Your task to perform on an android device: Open eBay Image 0: 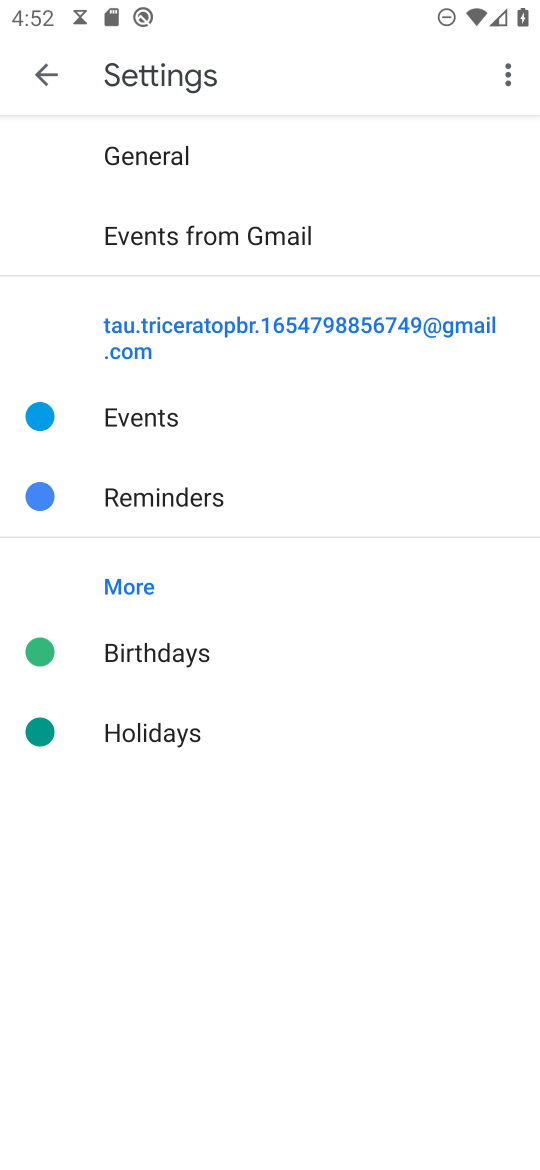
Step 0: press home button
Your task to perform on an android device: Open eBay Image 1: 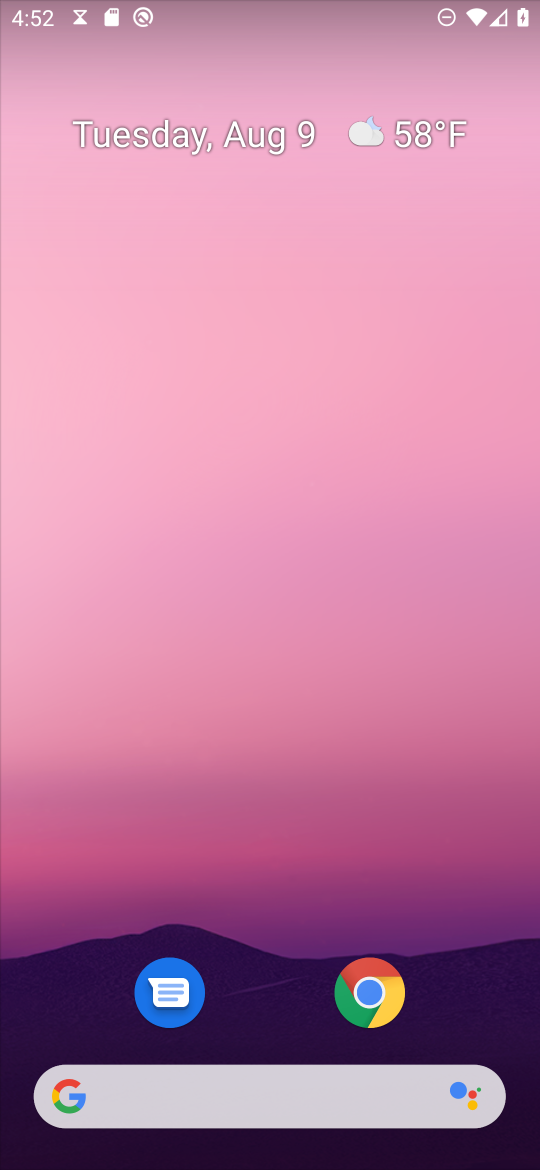
Step 1: drag from (338, 1063) to (133, 38)
Your task to perform on an android device: Open eBay Image 2: 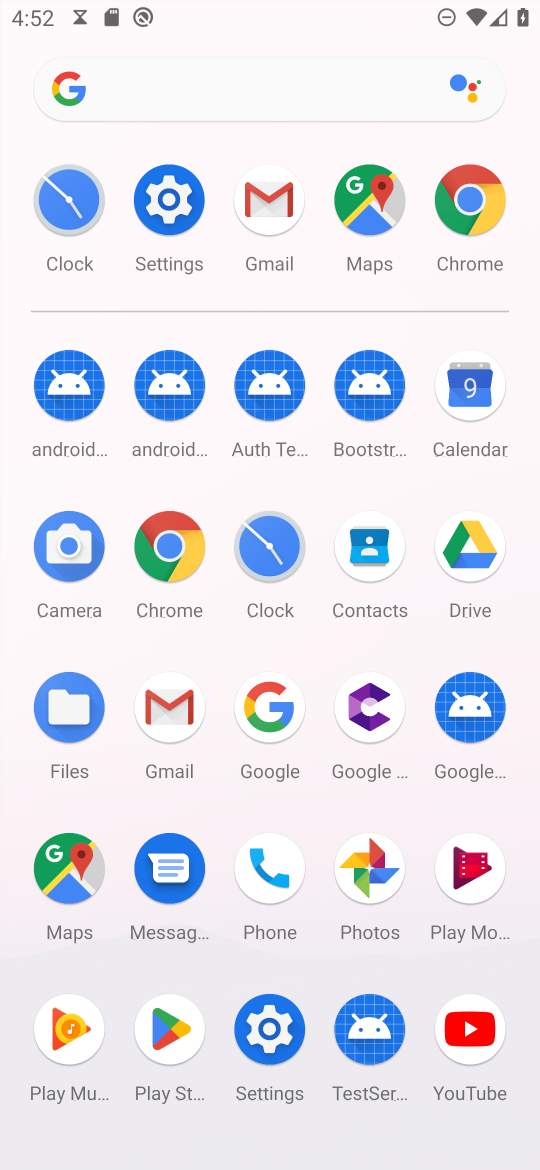
Step 2: click (149, 627)
Your task to perform on an android device: Open eBay Image 3: 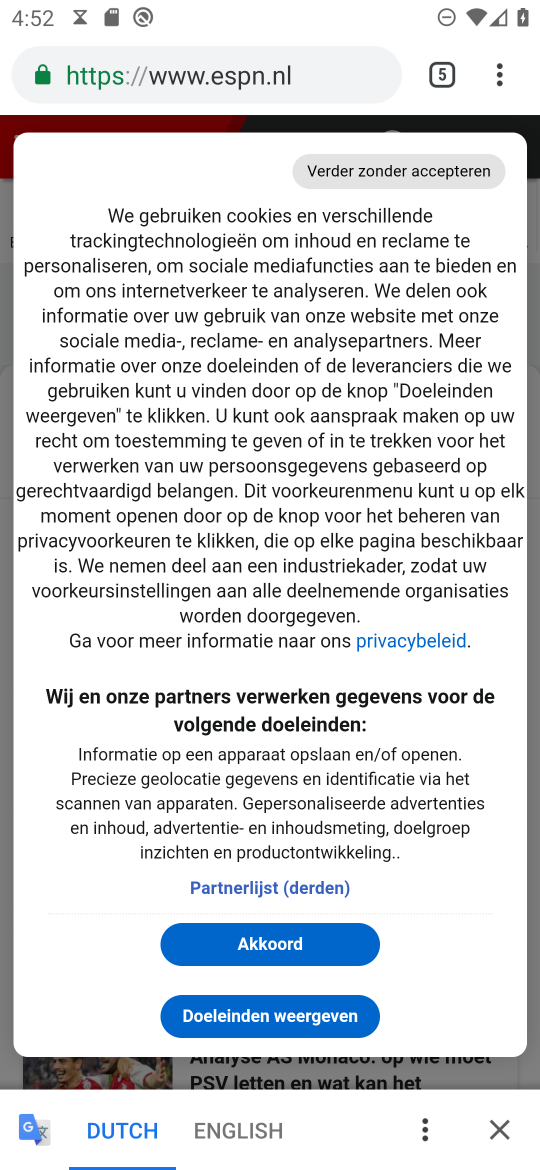
Step 3: click (306, 69)
Your task to perform on an android device: Open eBay Image 4: 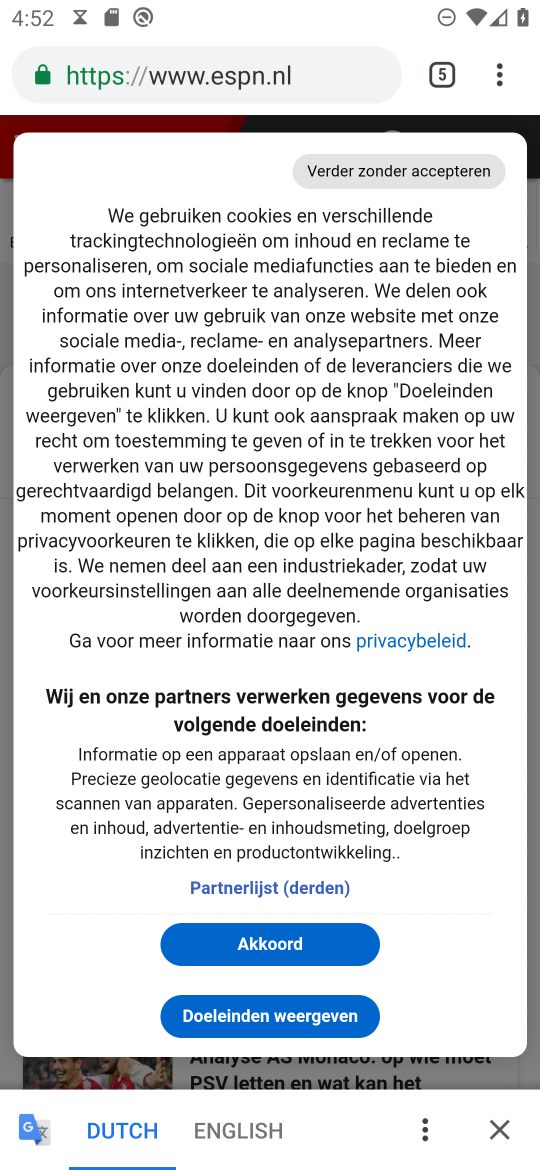
Step 4: click (306, 69)
Your task to perform on an android device: Open eBay Image 5: 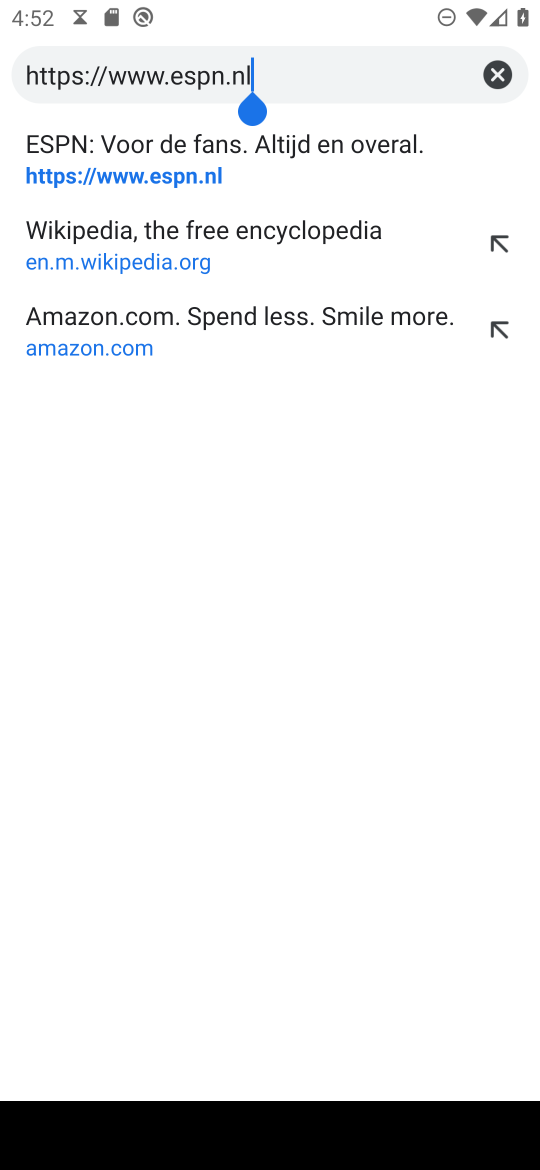
Step 5: click (497, 69)
Your task to perform on an android device: Open eBay Image 6: 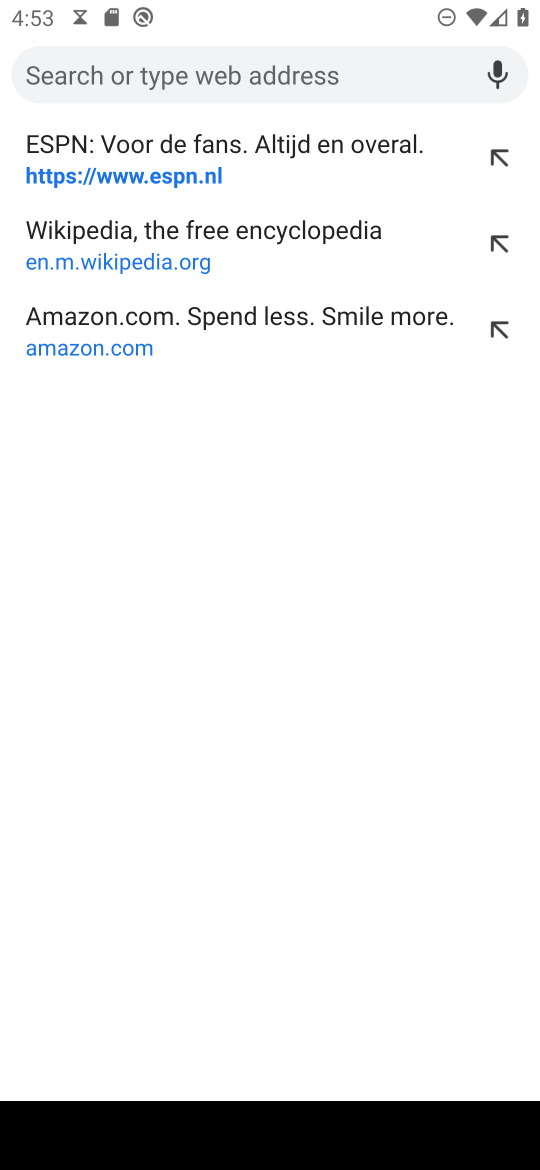
Step 6: type "ebay"
Your task to perform on an android device: Open eBay Image 7: 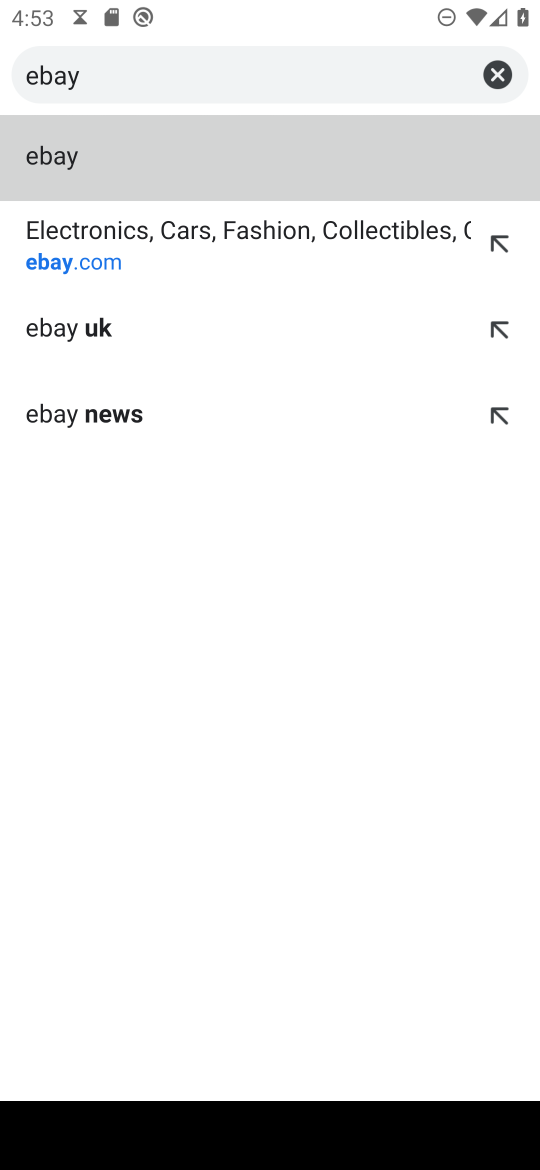
Step 7: click (287, 236)
Your task to perform on an android device: Open eBay Image 8: 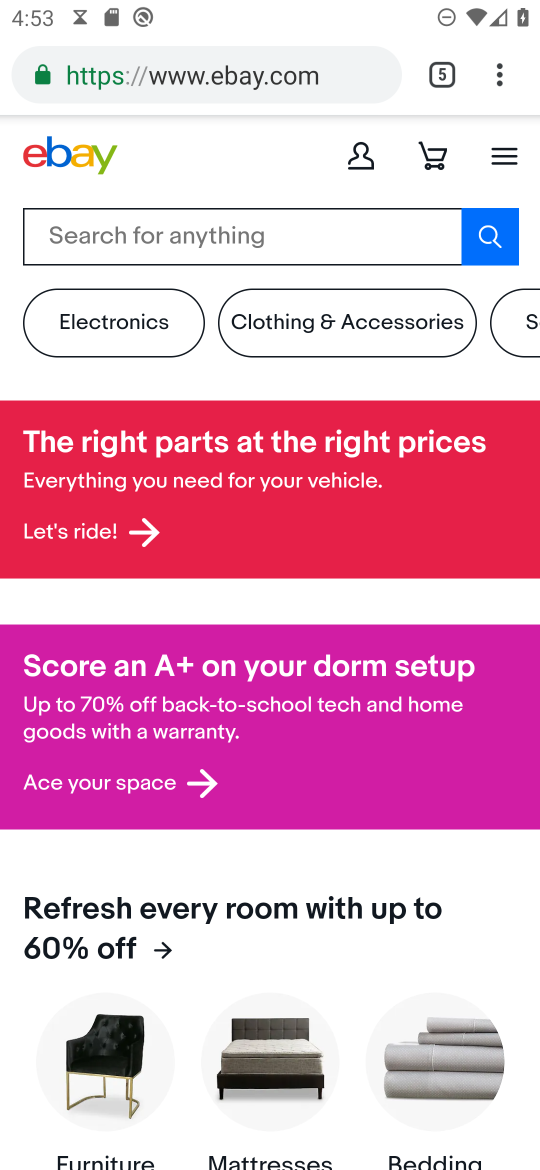
Step 8: task complete